Your task to perform on an android device: change alarm snooze length Image 0: 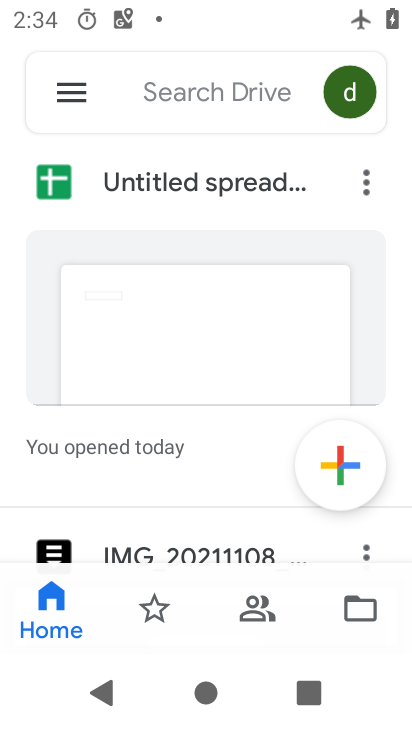
Step 0: press home button
Your task to perform on an android device: change alarm snooze length Image 1: 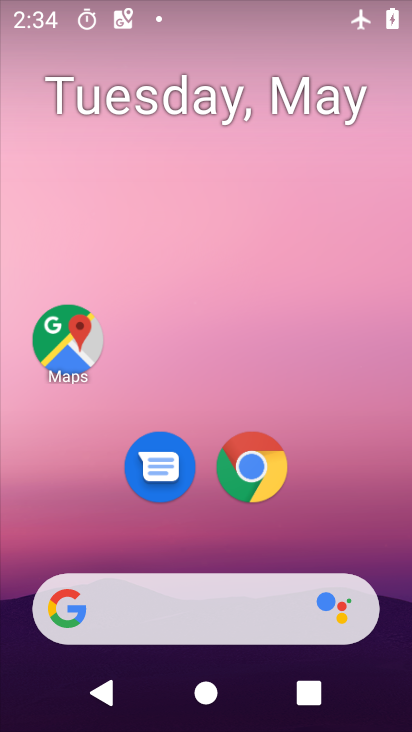
Step 1: drag from (358, 498) to (348, 262)
Your task to perform on an android device: change alarm snooze length Image 2: 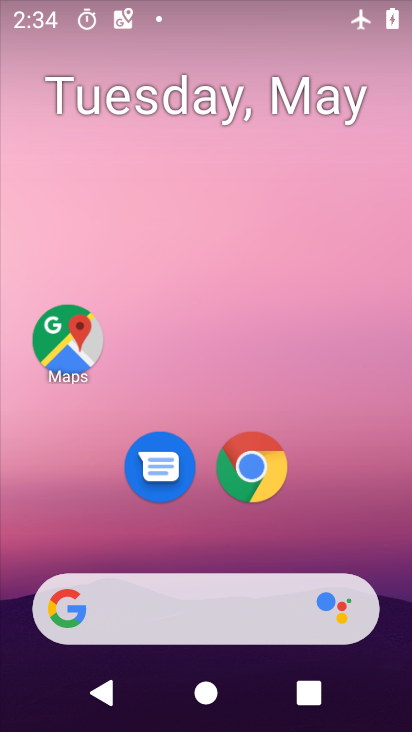
Step 2: drag from (344, 541) to (341, 140)
Your task to perform on an android device: change alarm snooze length Image 3: 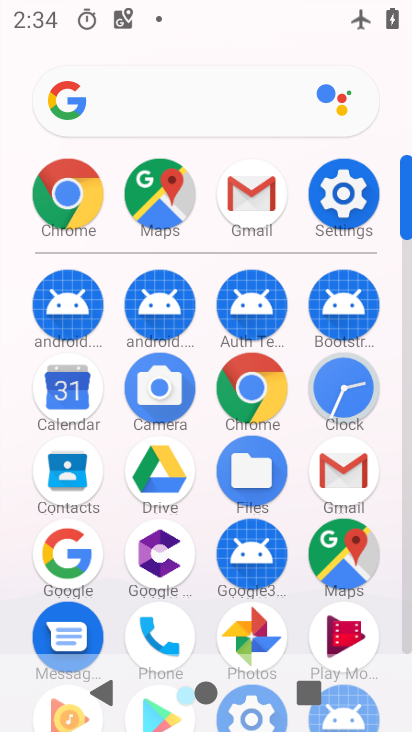
Step 3: click (353, 401)
Your task to perform on an android device: change alarm snooze length Image 4: 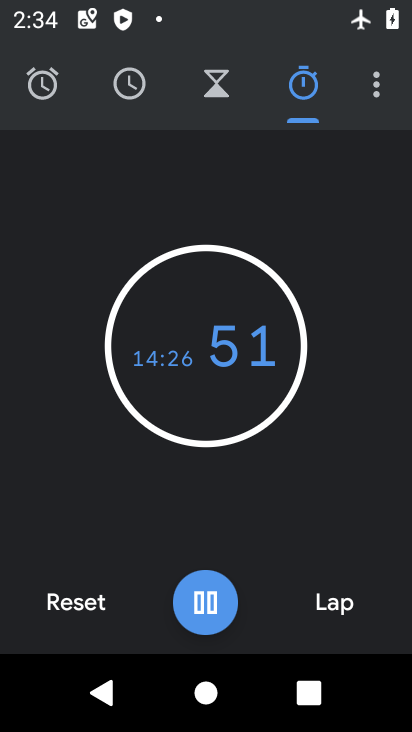
Step 4: click (379, 100)
Your task to perform on an android device: change alarm snooze length Image 5: 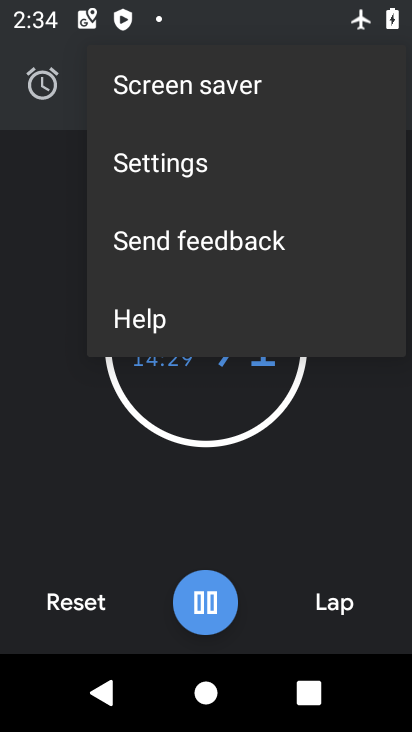
Step 5: click (307, 164)
Your task to perform on an android device: change alarm snooze length Image 6: 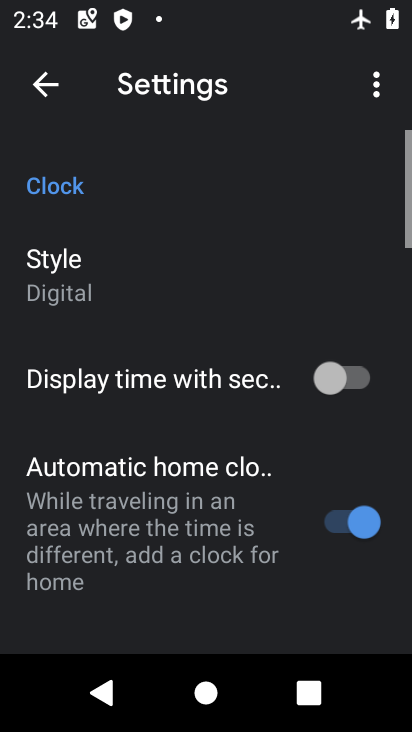
Step 6: drag from (284, 460) to (284, 342)
Your task to perform on an android device: change alarm snooze length Image 7: 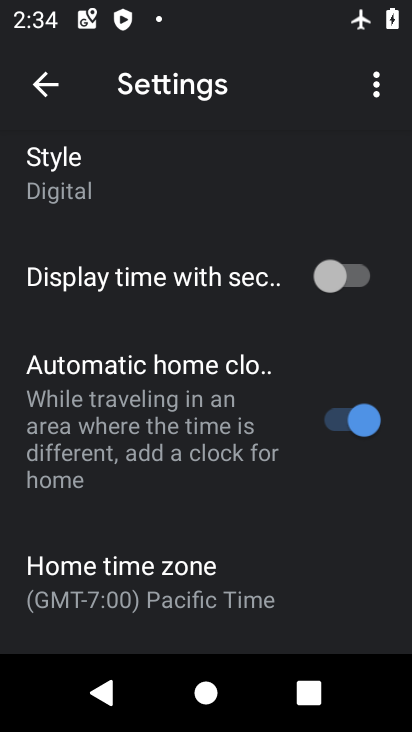
Step 7: drag from (293, 482) to (290, 371)
Your task to perform on an android device: change alarm snooze length Image 8: 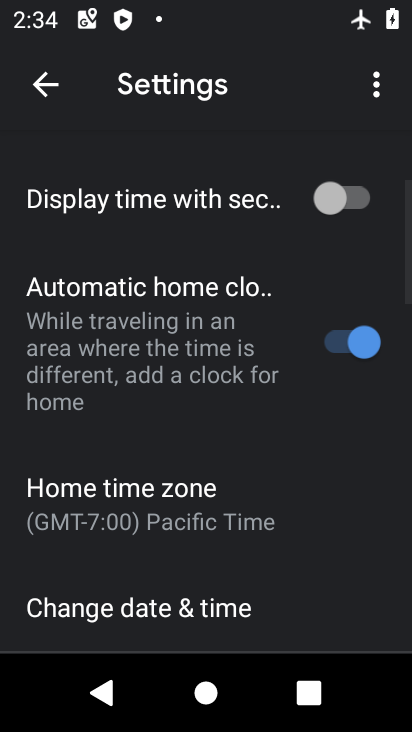
Step 8: drag from (305, 501) to (307, 390)
Your task to perform on an android device: change alarm snooze length Image 9: 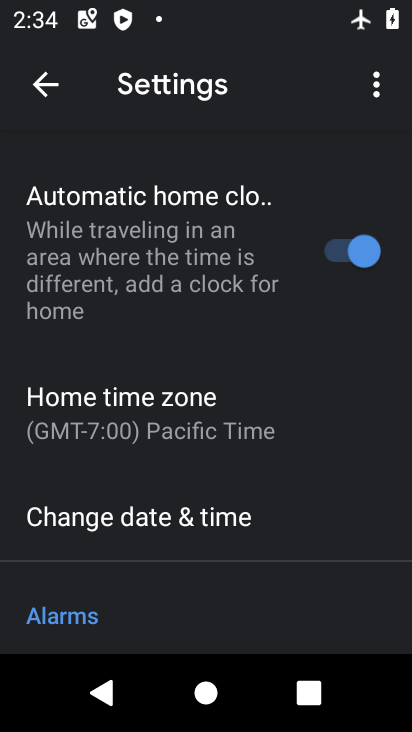
Step 9: drag from (319, 520) to (324, 403)
Your task to perform on an android device: change alarm snooze length Image 10: 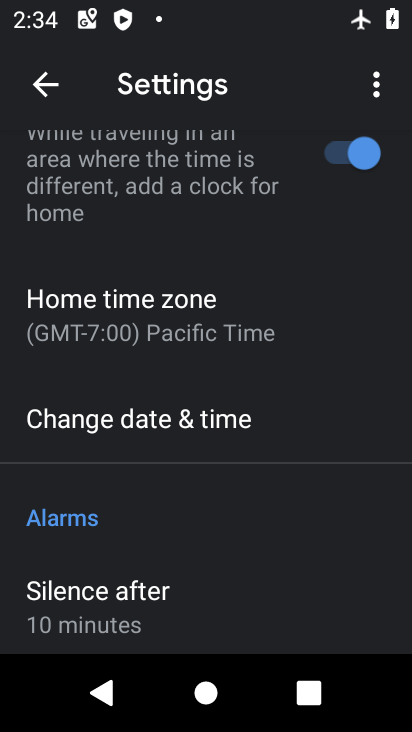
Step 10: drag from (317, 525) to (327, 422)
Your task to perform on an android device: change alarm snooze length Image 11: 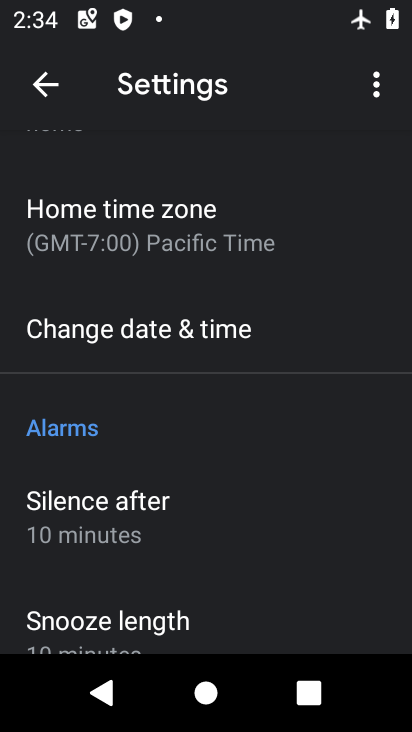
Step 11: drag from (329, 523) to (338, 389)
Your task to perform on an android device: change alarm snooze length Image 12: 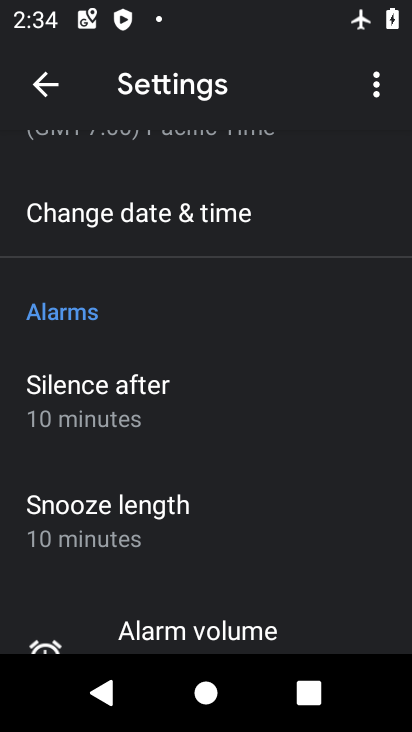
Step 12: drag from (315, 527) to (311, 330)
Your task to perform on an android device: change alarm snooze length Image 13: 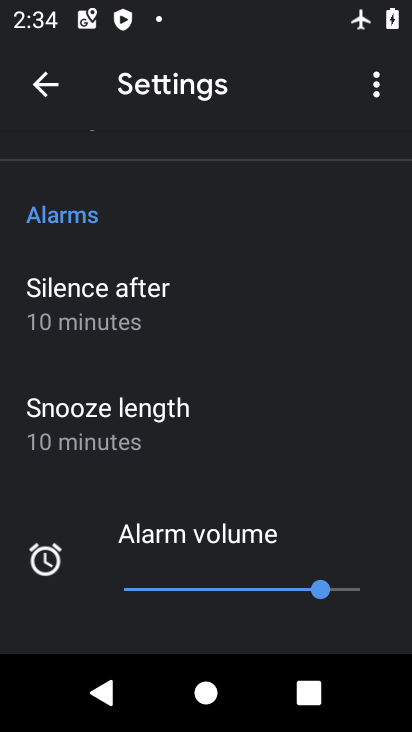
Step 13: drag from (301, 487) to (319, 328)
Your task to perform on an android device: change alarm snooze length Image 14: 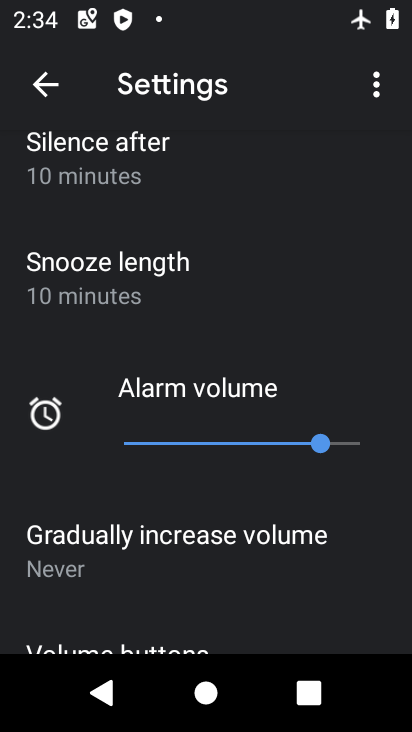
Step 14: drag from (292, 586) to (306, 363)
Your task to perform on an android device: change alarm snooze length Image 15: 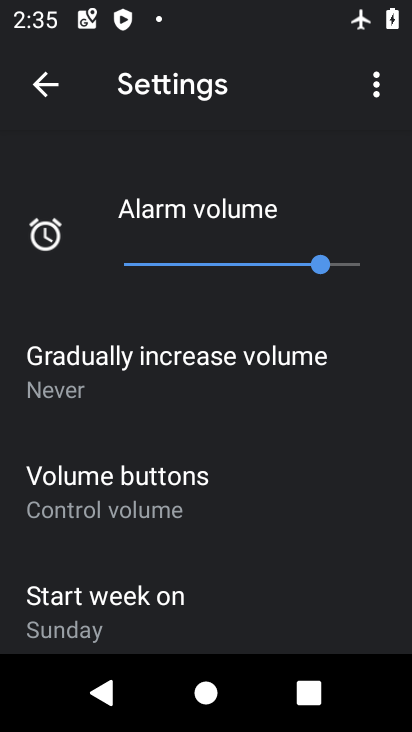
Step 15: drag from (311, 564) to (308, 429)
Your task to perform on an android device: change alarm snooze length Image 16: 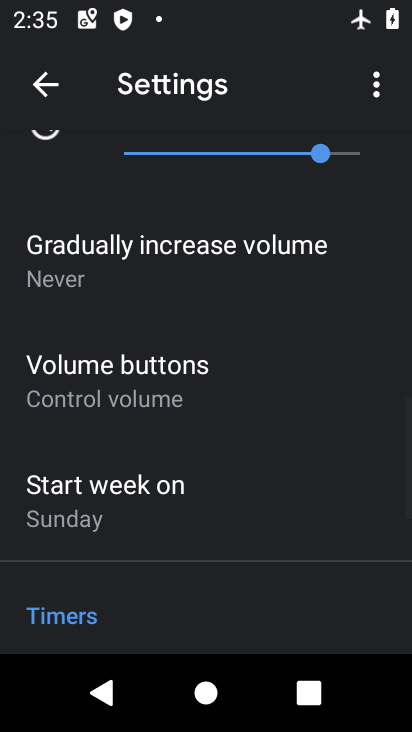
Step 16: drag from (313, 341) to (289, 473)
Your task to perform on an android device: change alarm snooze length Image 17: 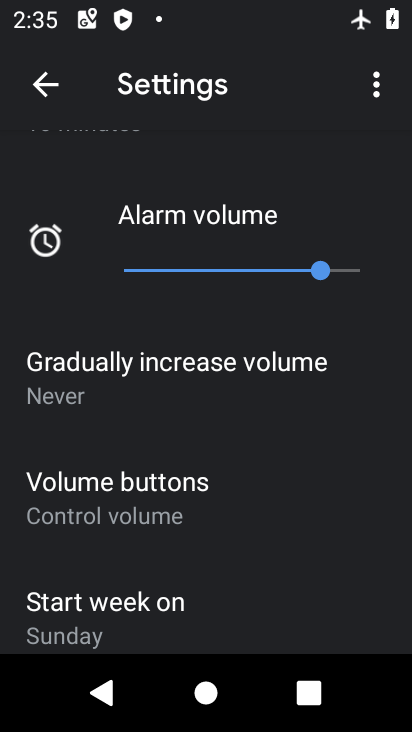
Step 17: drag from (282, 563) to (281, 413)
Your task to perform on an android device: change alarm snooze length Image 18: 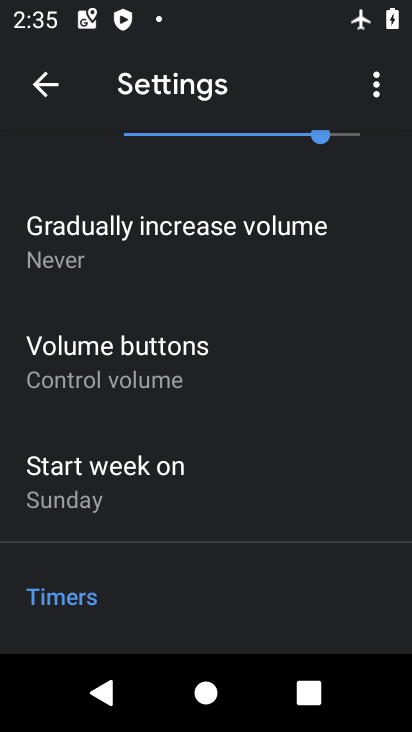
Step 18: drag from (291, 356) to (278, 491)
Your task to perform on an android device: change alarm snooze length Image 19: 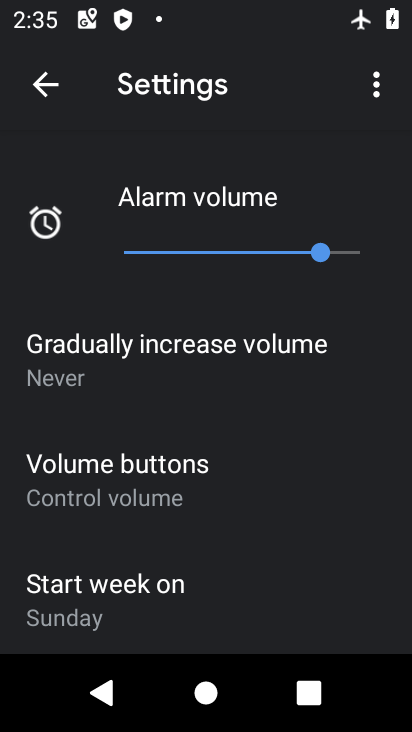
Step 19: drag from (351, 296) to (347, 480)
Your task to perform on an android device: change alarm snooze length Image 20: 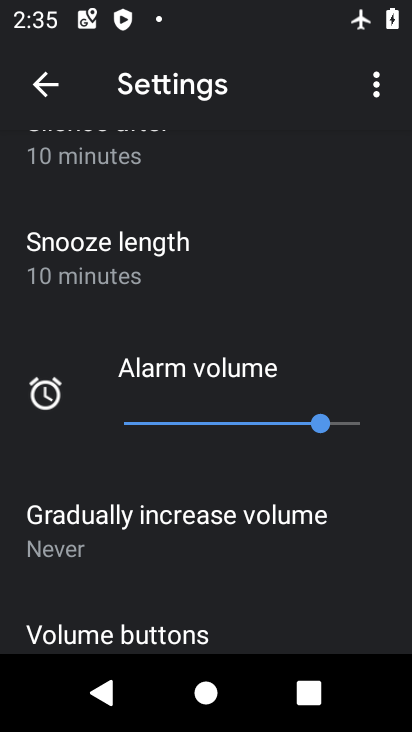
Step 20: click (204, 263)
Your task to perform on an android device: change alarm snooze length Image 21: 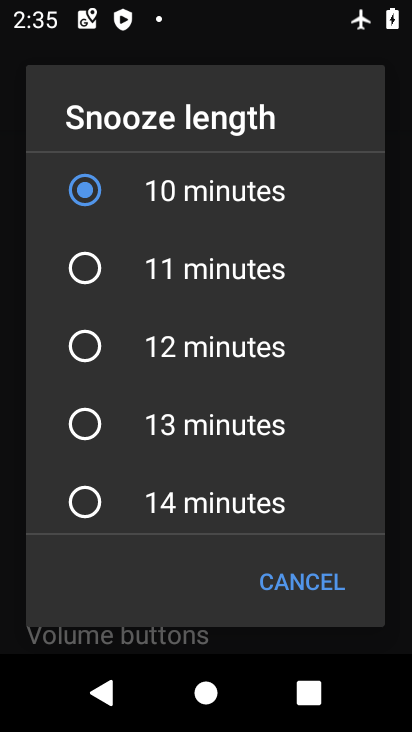
Step 21: click (217, 356)
Your task to perform on an android device: change alarm snooze length Image 22: 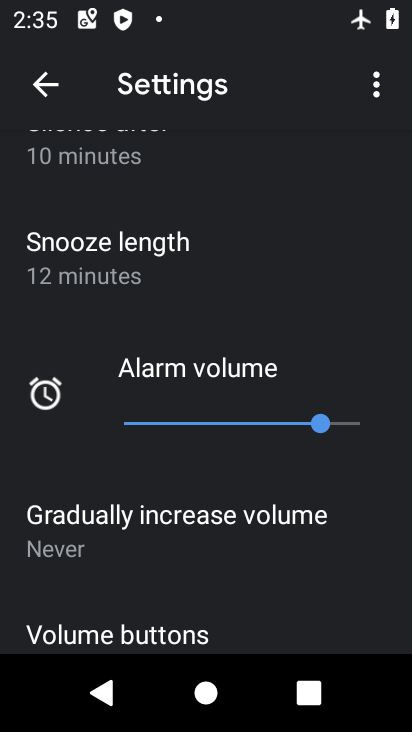
Step 22: task complete